Your task to perform on an android device: Go to internet settings Image 0: 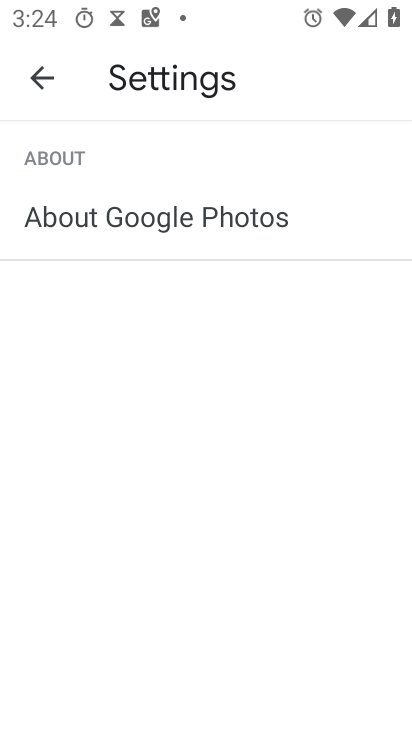
Step 0: press back button
Your task to perform on an android device: Go to internet settings Image 1: 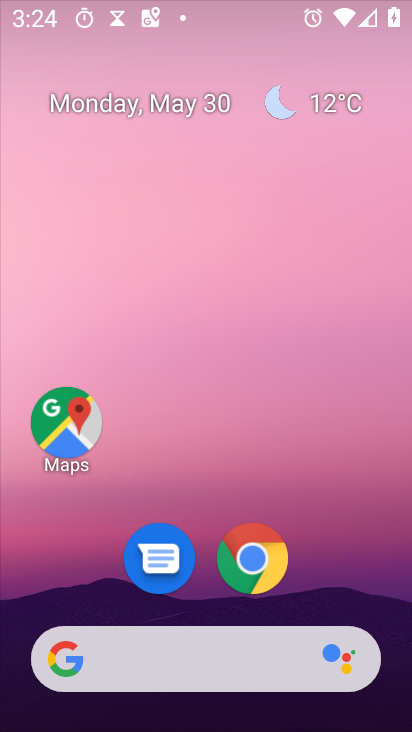
Step 1: drag from (285, 74) to (294, 18)
Your task to perform on an android device: Go to internet settings Image 2: 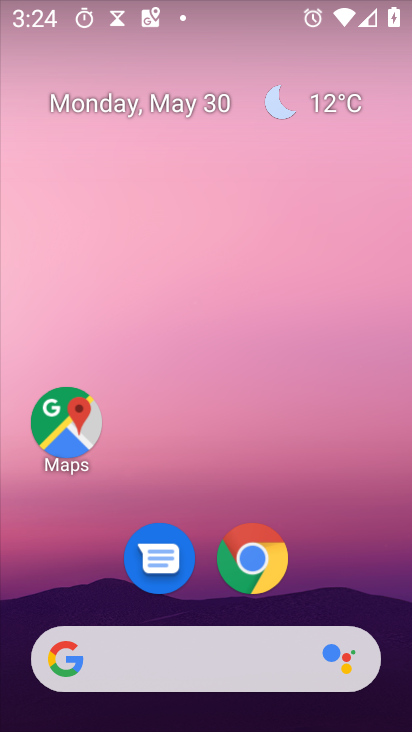
Step 2: drag from (213, 475) to (264, 90)
Your task to perform on an android device: Go to internet settings Image 3: 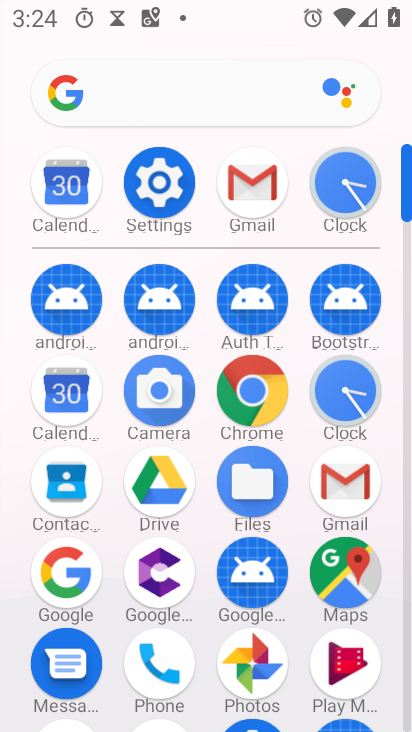
Step 3: click (152, 181)
Your task to perform on an android device: Go to internet settings Image 4: 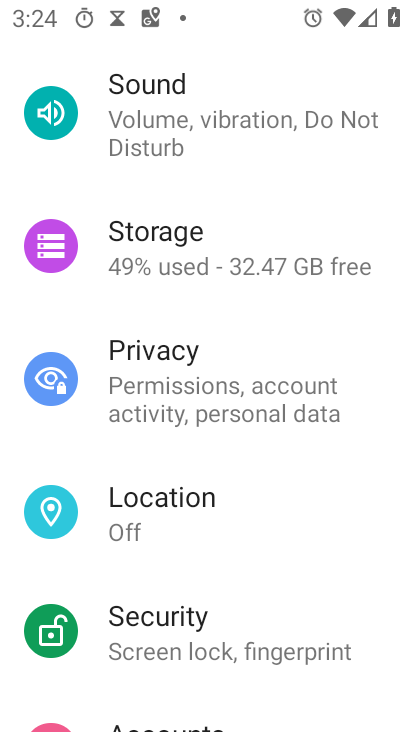
Step 4: drag from (188, 180) to (141, 648)
Your task to perform on an android device: Go to internet settings Image 5: 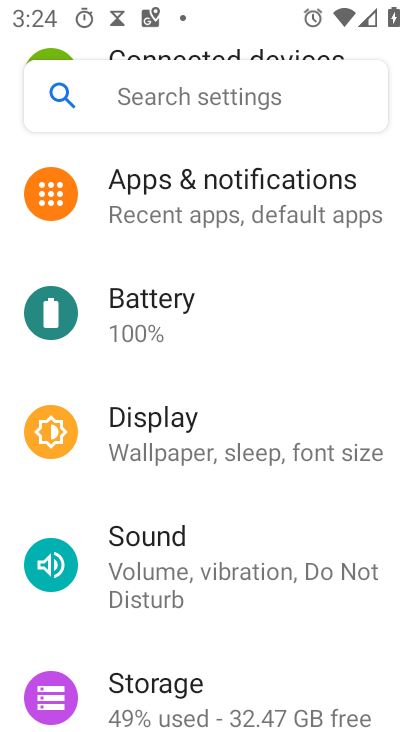
Step 5: drag from (231, 210) to (216, 622)
Your task to perform on an android device: Go to internet settings Image 6: 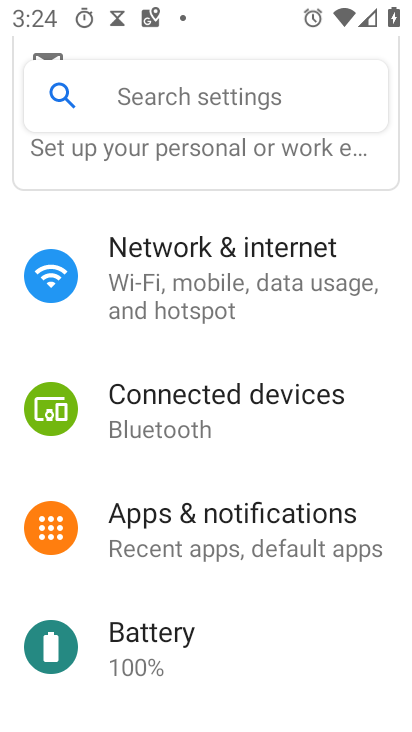
Step 6: click (207, 251)
Your task to perform on an android device: Go to internet settings Image 7: 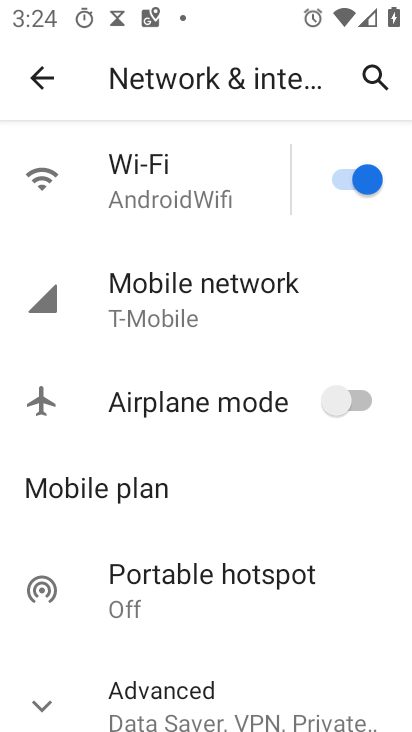
Step 7: task complete